Your task to perform on an android device: open the mobile data screen to see how much data has been used Image 0: 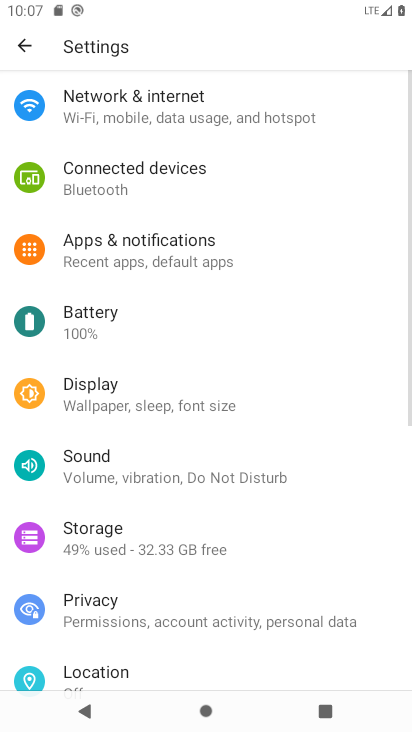
Step 0: press home button
Your task to perform on an android device: open the mobile data screen to see how much data has been used Image 1: 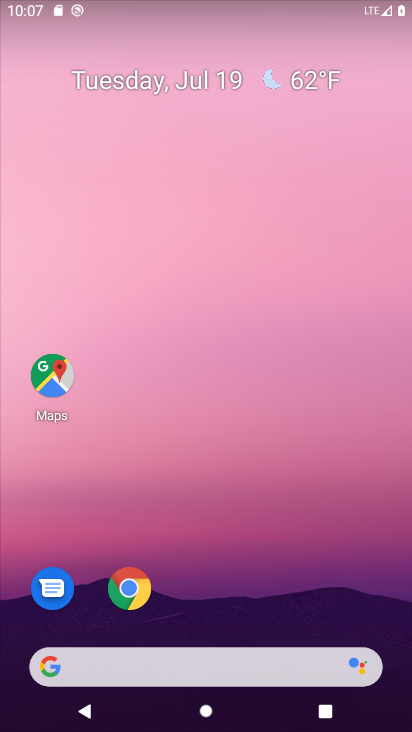
Step 1: drag from (177, 562) to (160, 217)
Your task to perform on an android device: open the mobile data screen to see how much data has been used Image 2: 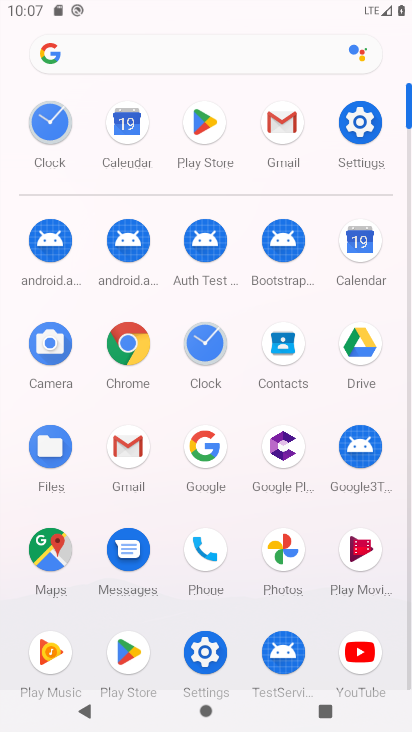
Step 2: click (355, 125)
Your task to perform on an android device: open the mobile data screen to see how much data has been used Image 3: 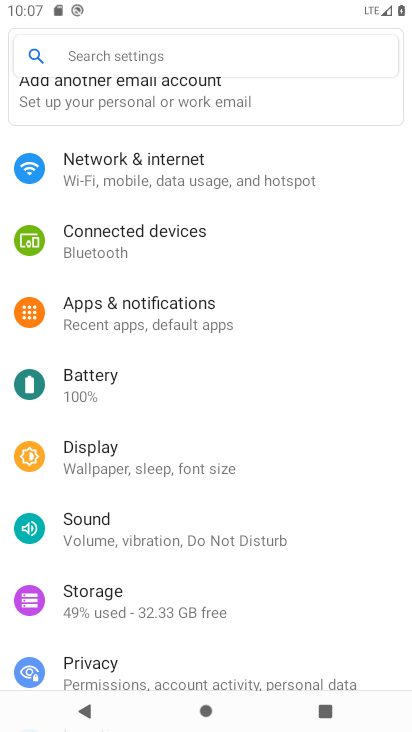
Step 3: drag from (133, 134) to (123, 567)
Your task to perform on an android device: open the mobile data screen to see how much data has been used Image 4: 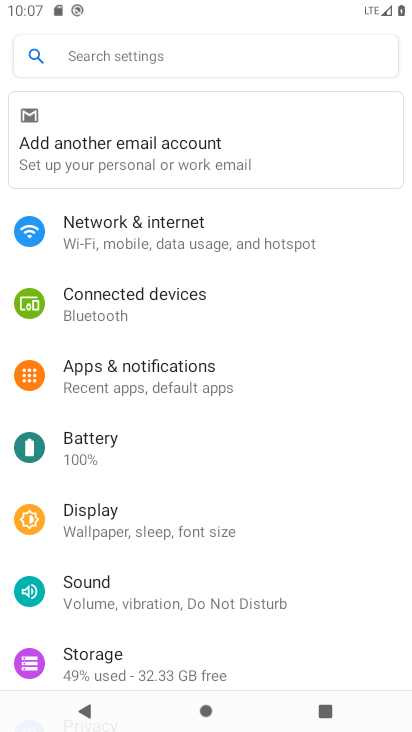
Step 4: click (188, 242)
Your task to perform on an android device: open the mobile data screen to see how much data has been used Image 5: 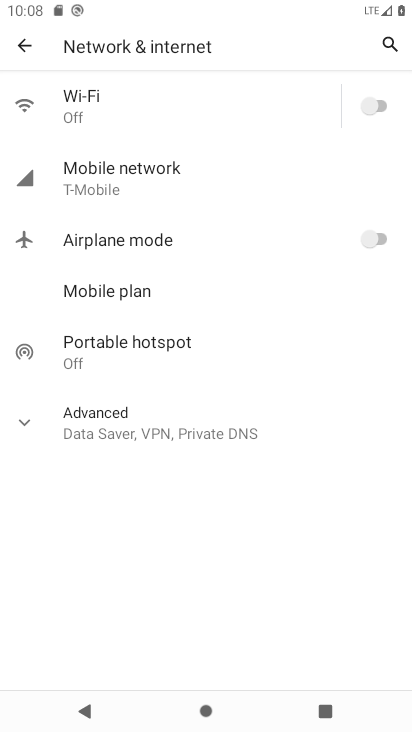
Step 5: click (139, 179)
Your task to perform on an android device: open the mobile data screen to see how much data has been used Image 6: 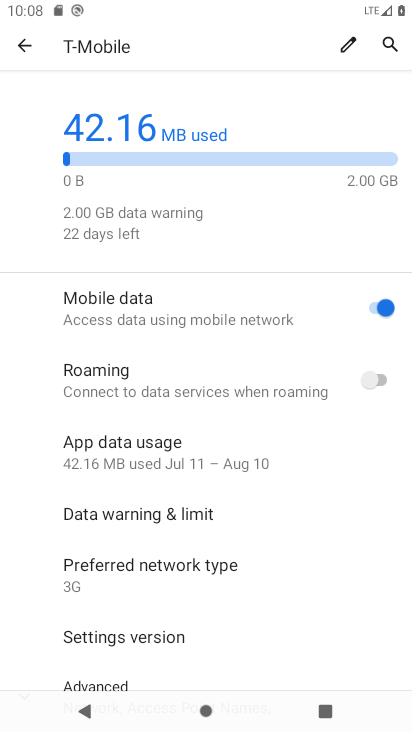
Step 6: task complete